Your task to perform on an android device: open sync settings in chrome Image 0: 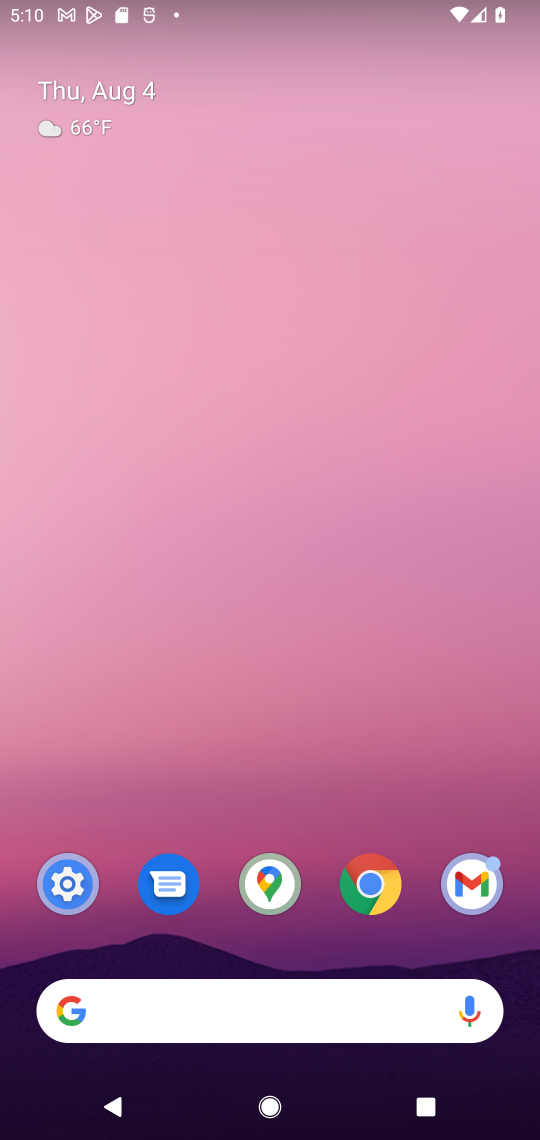
Step 0: click (381, 884)
Your task to perform on an android device: open sync settings in chrome Image 1: 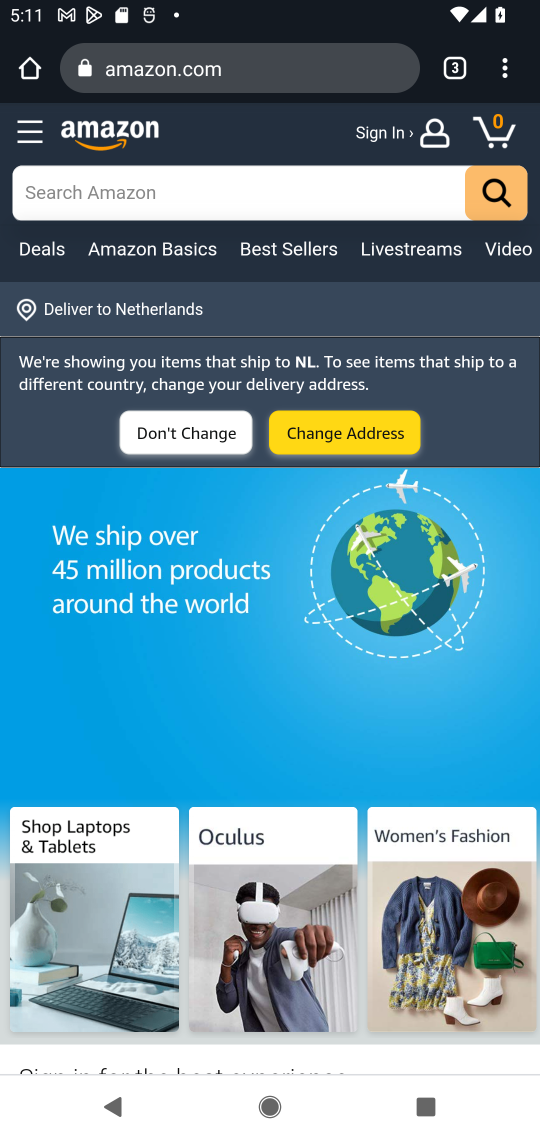
Step 1: task complete